Your task to perform on an android device: delete location history Image 0: 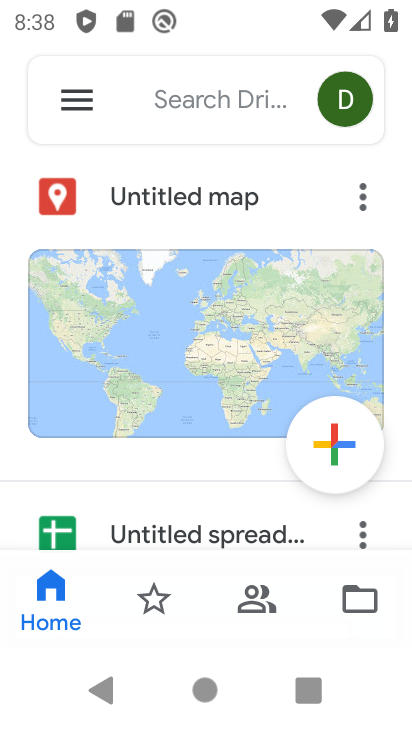
Step 0: press home button
Your task to perform on an android device: delete location history Image 1: 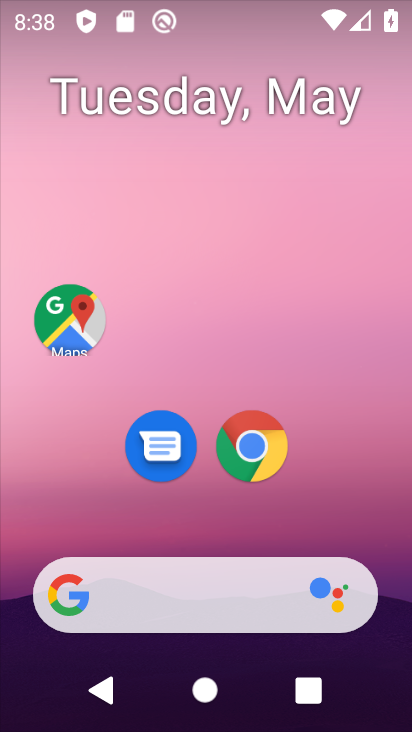
Step 1: drag from (391, 573) to (390, 219)
Your task to perform on an android device: delete location history Image 2: 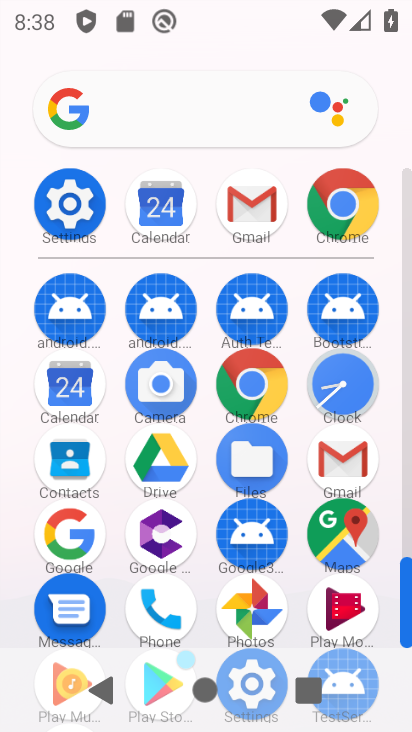
Step 2: click (359, 536)
Your task to perform on an android device: delete location history Image 3: 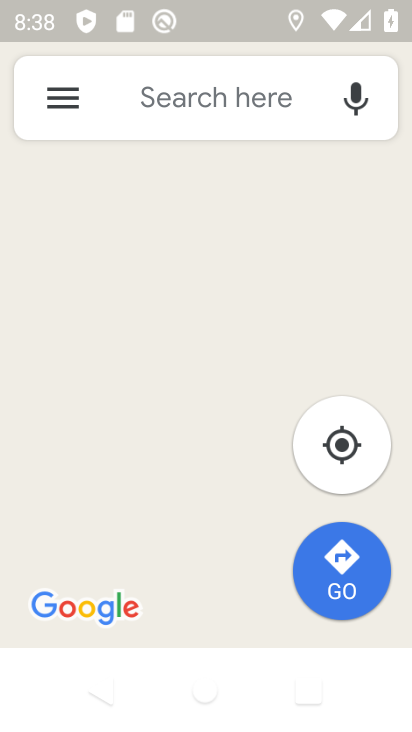
Step 3: click (70, 117)
Your task to perform on an android device: delete location history Image 4: 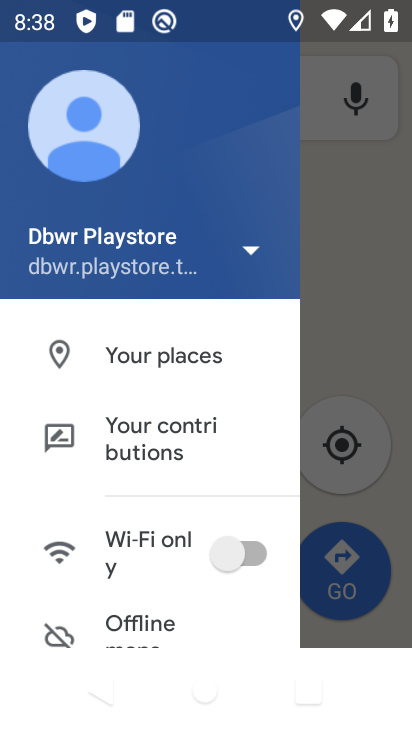
Step 4: click (178, 448)
Your task to perform on an android device: delete location history Image 5: 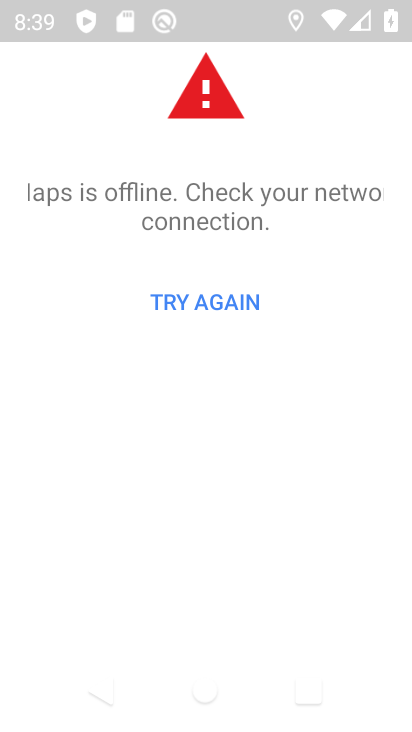
Step 5: task complete